Your task to perform on an android device: open app "Roku - Official Remote Control" (install if not already installed) and go to login screen Image 0: 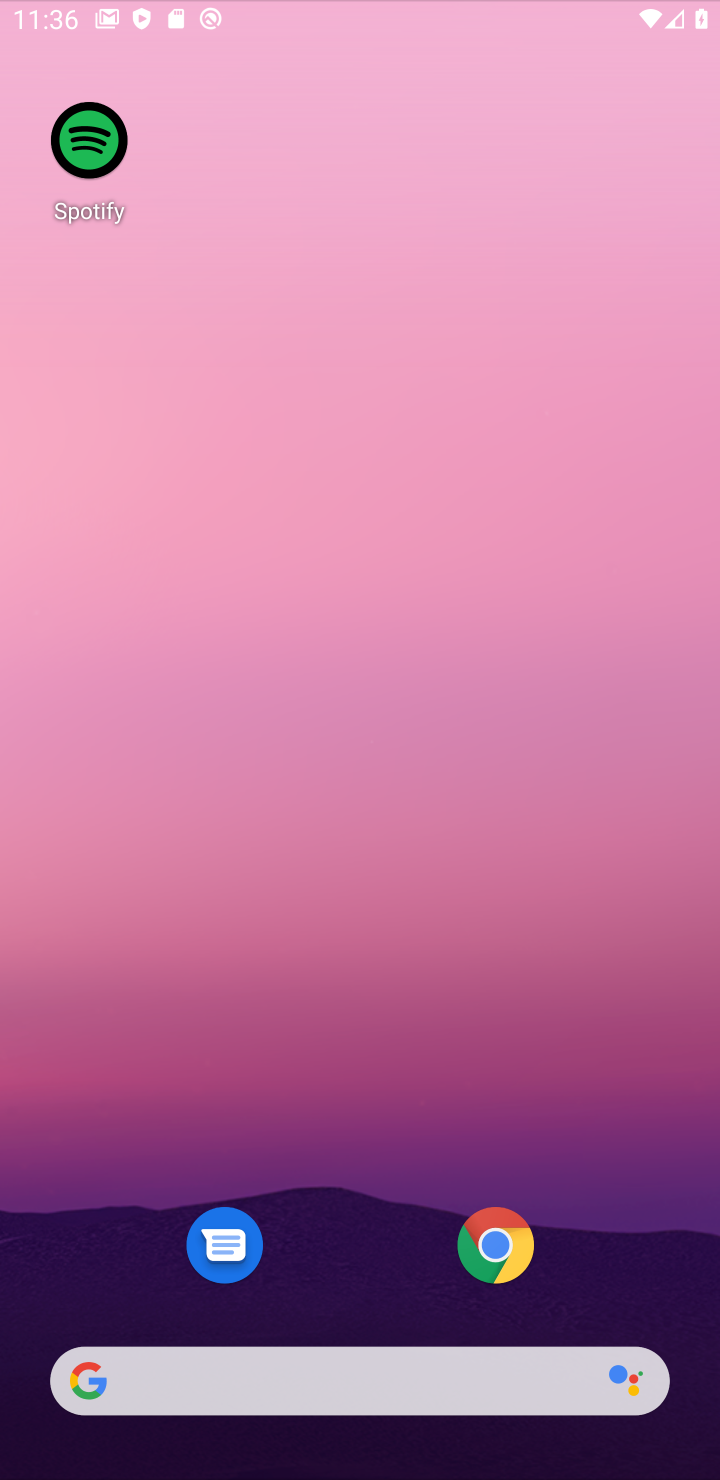
Step 0: press home button
Your task to perform on an android device: open app "Roku - Official Remote Control" (install if not already installed) and go to login screen Image 1: 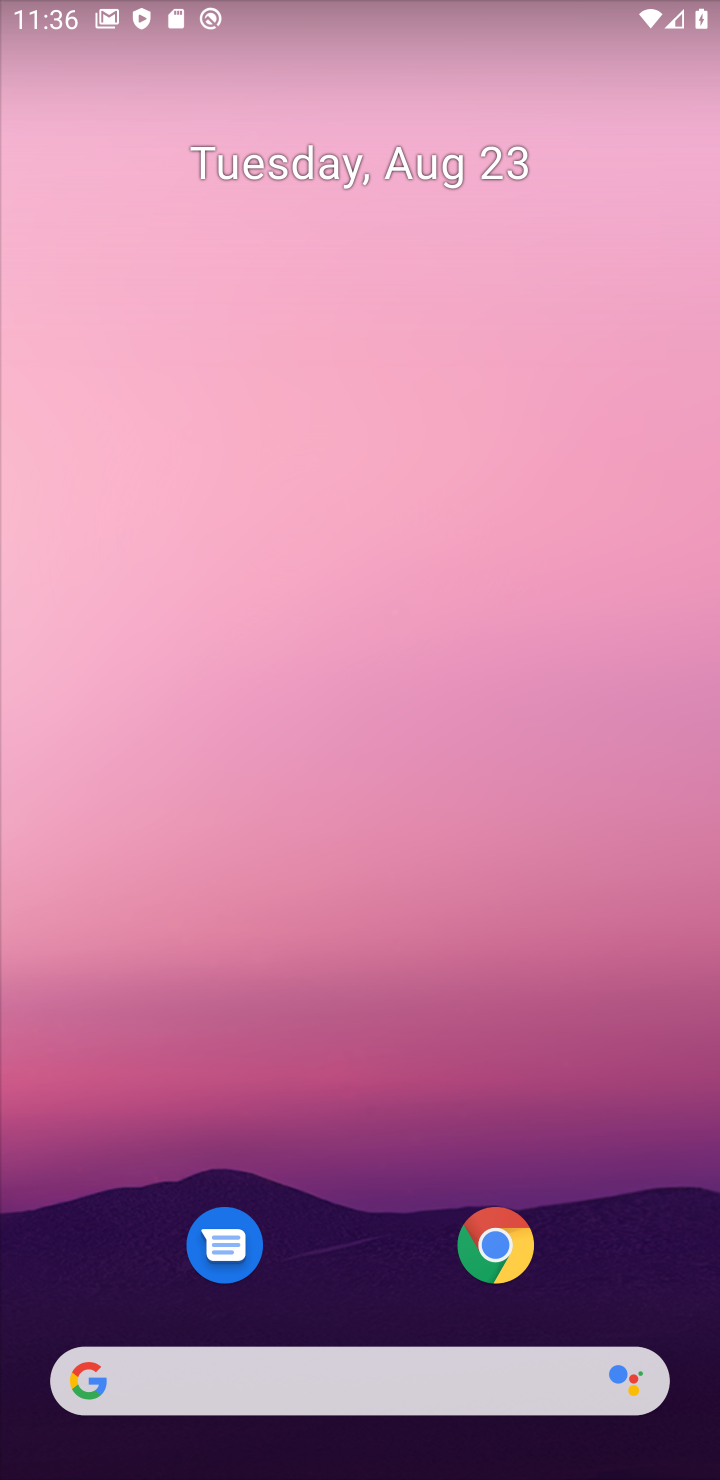
Step 1: press home button
Your task to perform on an android device: open app "Roku - Official Remote Control" (install if not already installed) and go to login screen Image 2: 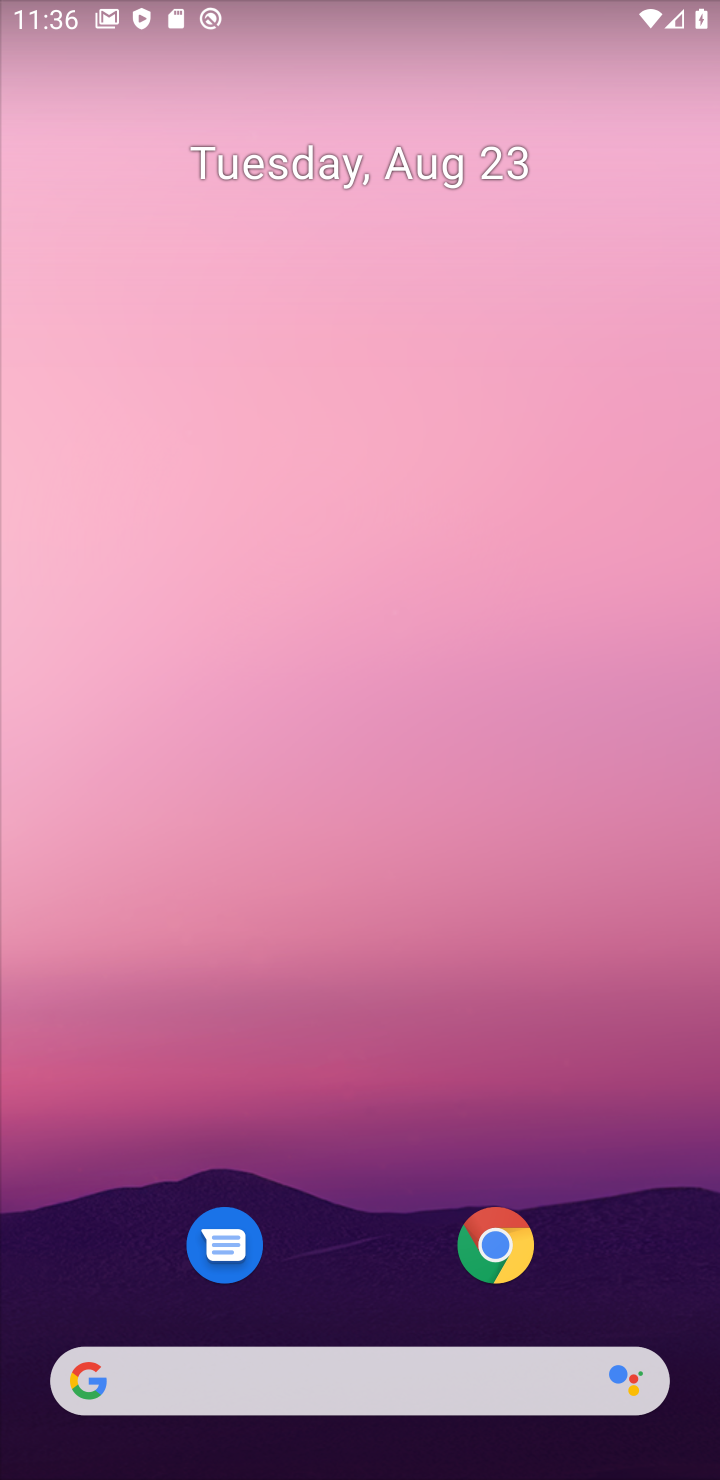
Step 2: drag from (431, 1209) to (665, 18)
Your task to perform on an android device: open app "Roku - Official Remote Control" (install if not already installed) and go to login screen Image 3: 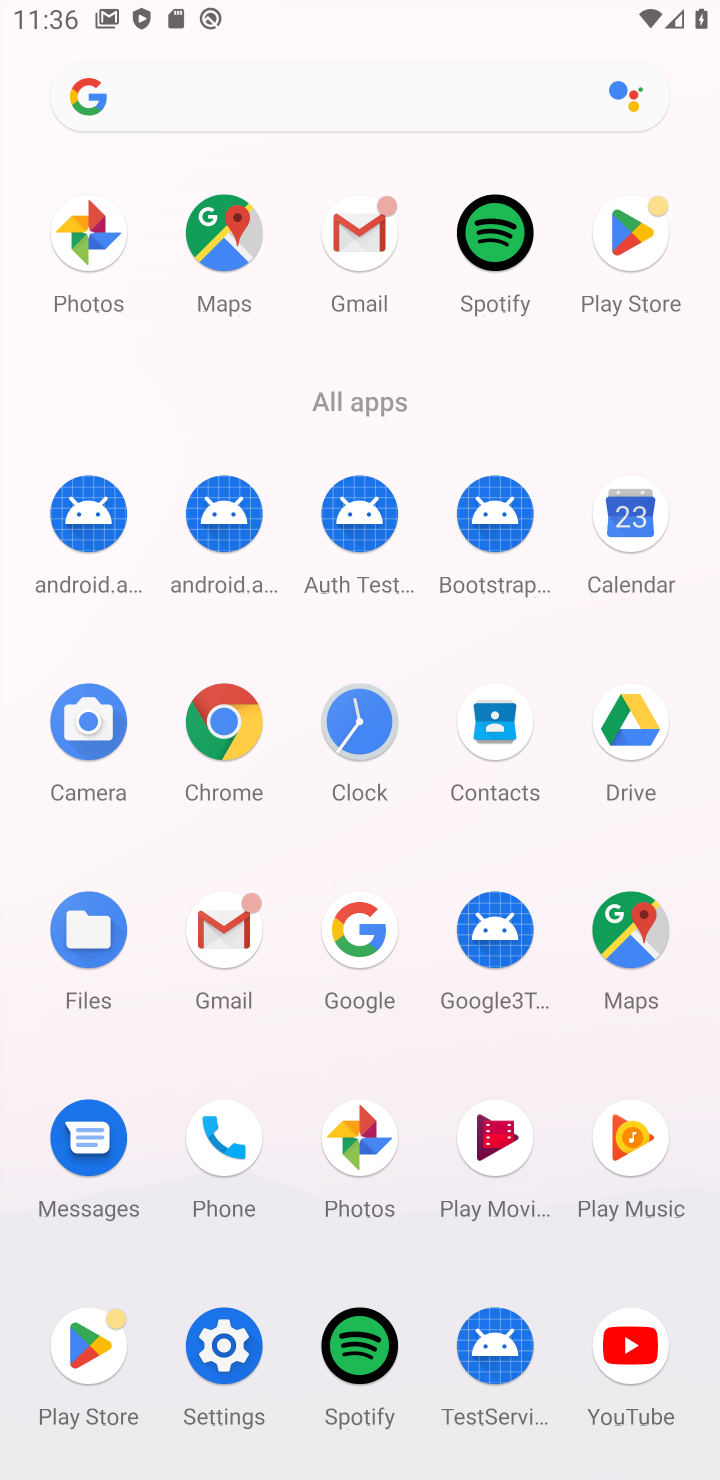
Step 3: drag from (86, 1344) to (436, 749)
Your task to perform on an android device: open app "Roku - Official Remote Control" (install if not already installed) and go to login screen Image 4: 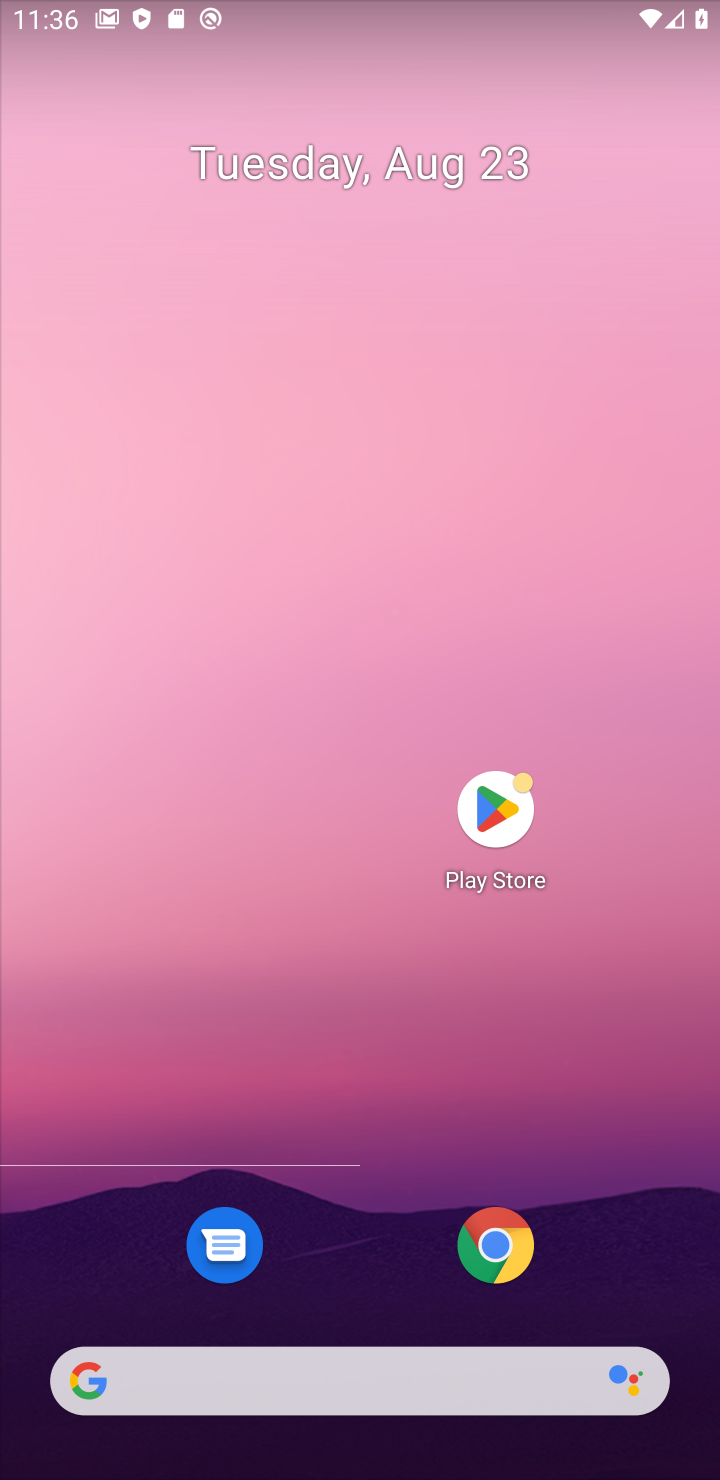
Step 4: click (494, 816)
Your task to perform on an android device: open app "Roku - Official Remote Control" (install if not already installed) and go to login screen Image 5: 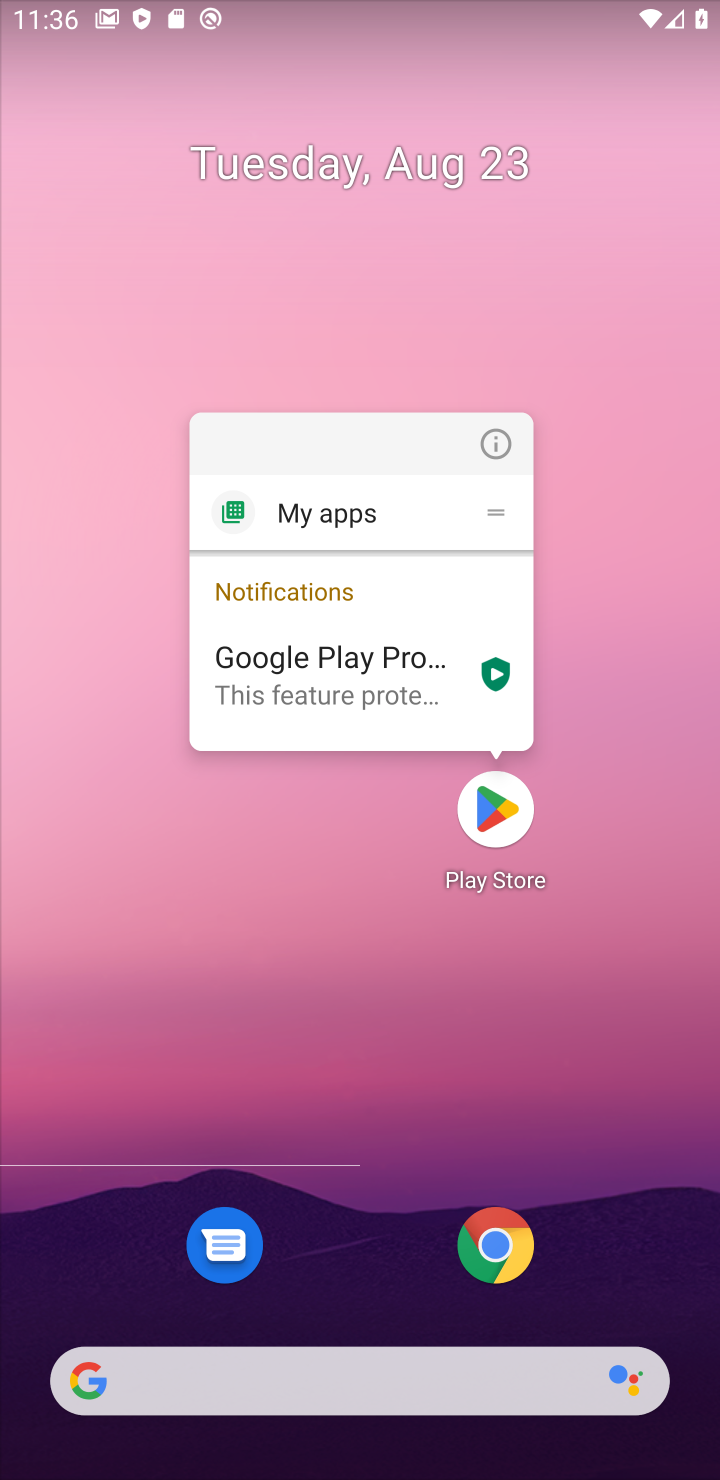
Step 5: click (494, 818)
Your task to perform on an android device: open app "Roku - Official Remote Control" (install if not already installed) and go to login screen Image 6: 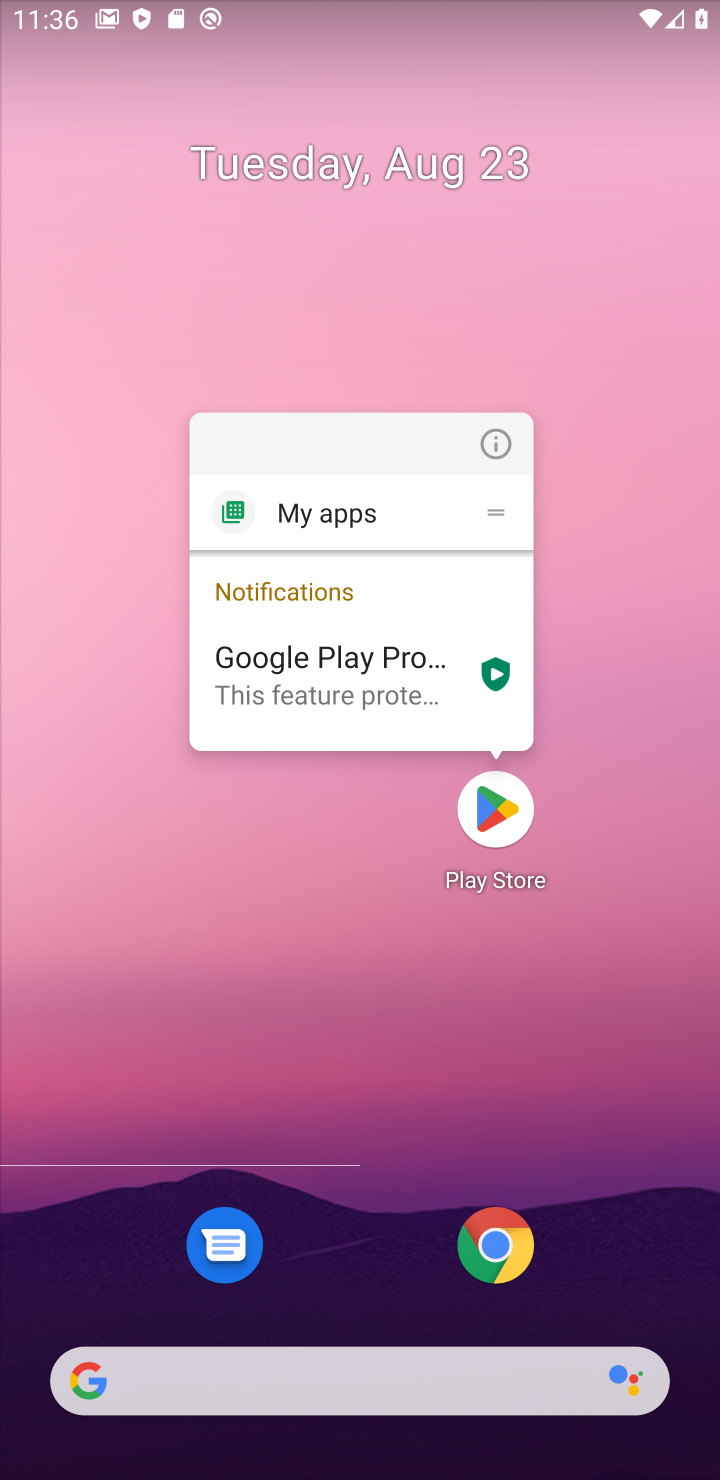
Step 6: click (498, 806)
Your task to perform on an android device: open app "Roku - Official Remote Control" (install if not already installed) and go to login screen Image 7: 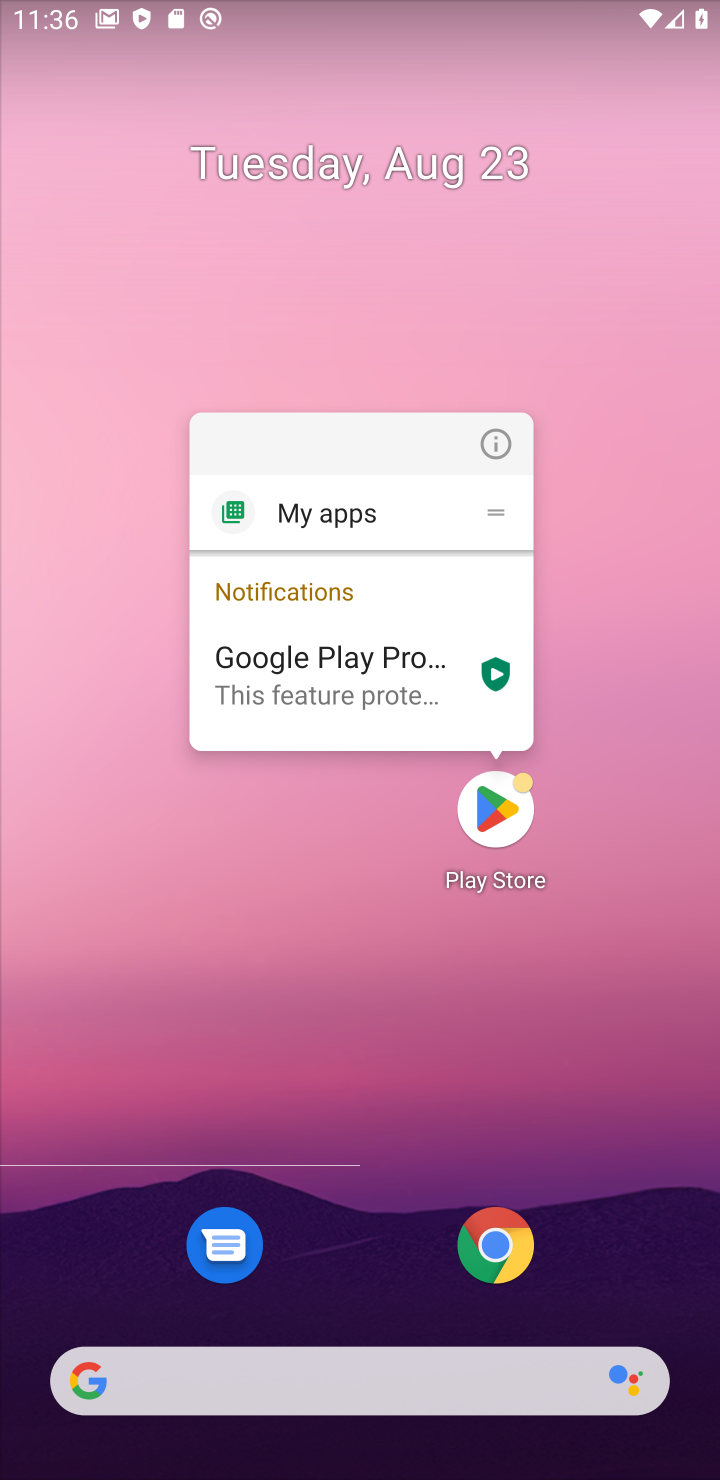
Step 7: click (498, 815)
Your task to perform on an android device: open app "Roku - Official Remote Control" (install if not already installed) and go to login screen Image 8: 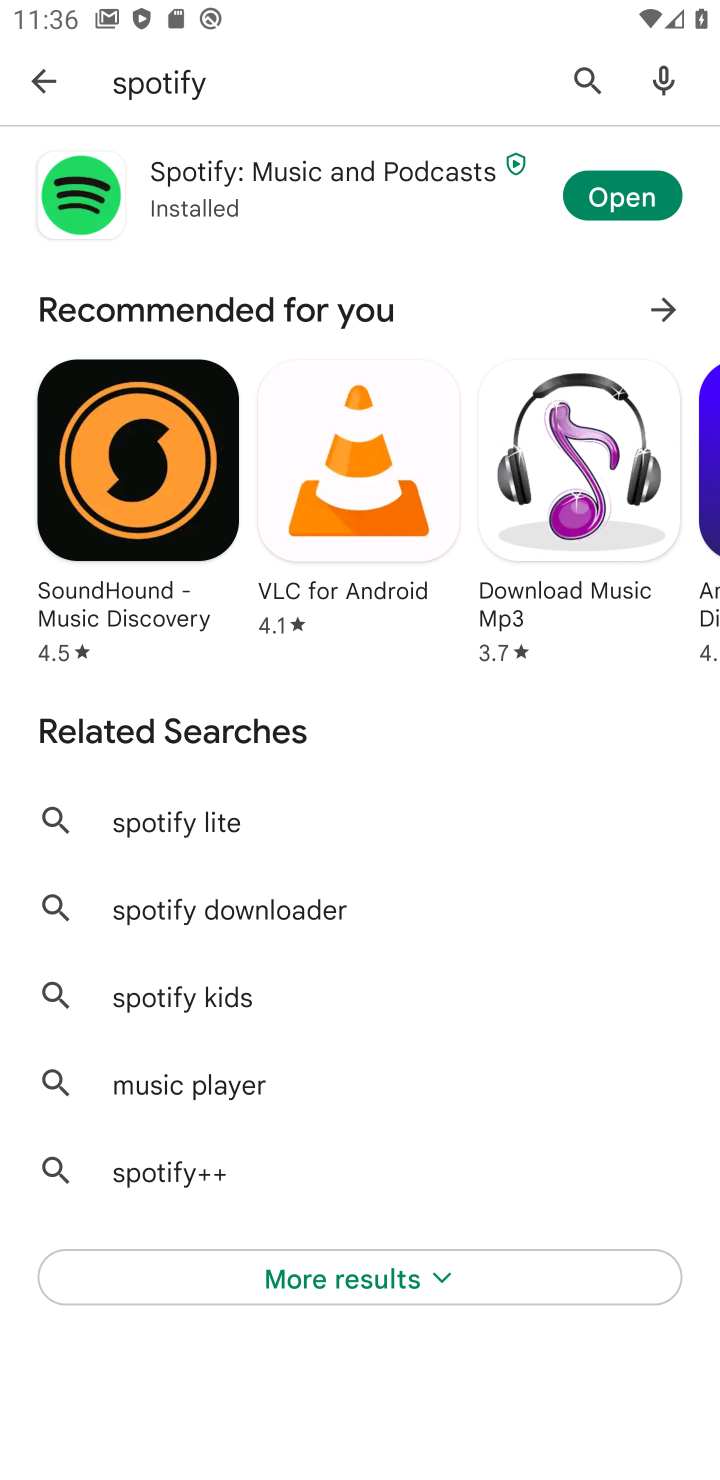
Step 8: click (576, 74)
Your task to perform on an android device: open app "Roku - Official Remote Control" (install if not already installed) and go to login screen Image 9: 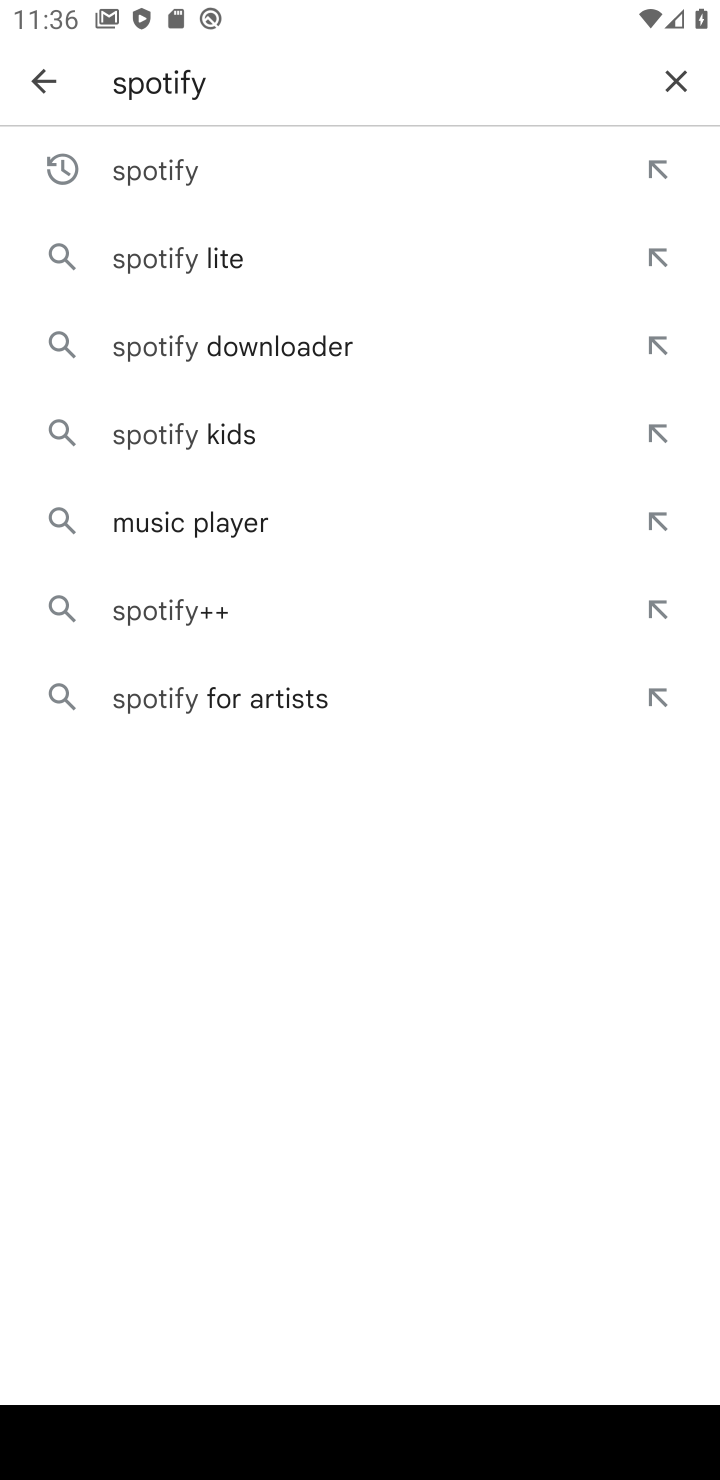
Step 9: click (667, 78)
Your task to perform on an android device: open app "Roku - Official Remote Control" (install if not already installed) and go to login screen Image 10: 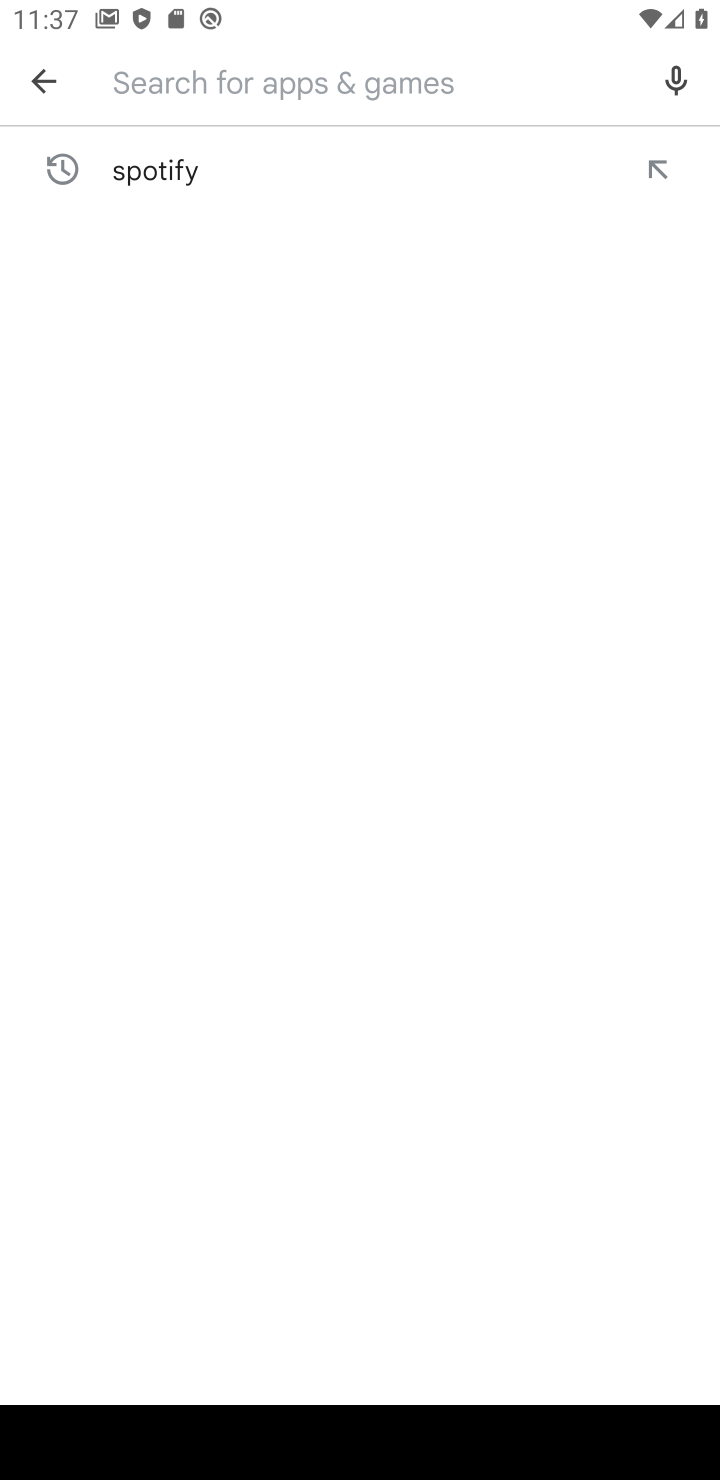
Step 10: type "Roku - Official Remote Control"
Your task to perform on an android device: open app "Roku - Official Remote Control" (install if not already installed) and go to login screen Image 11: 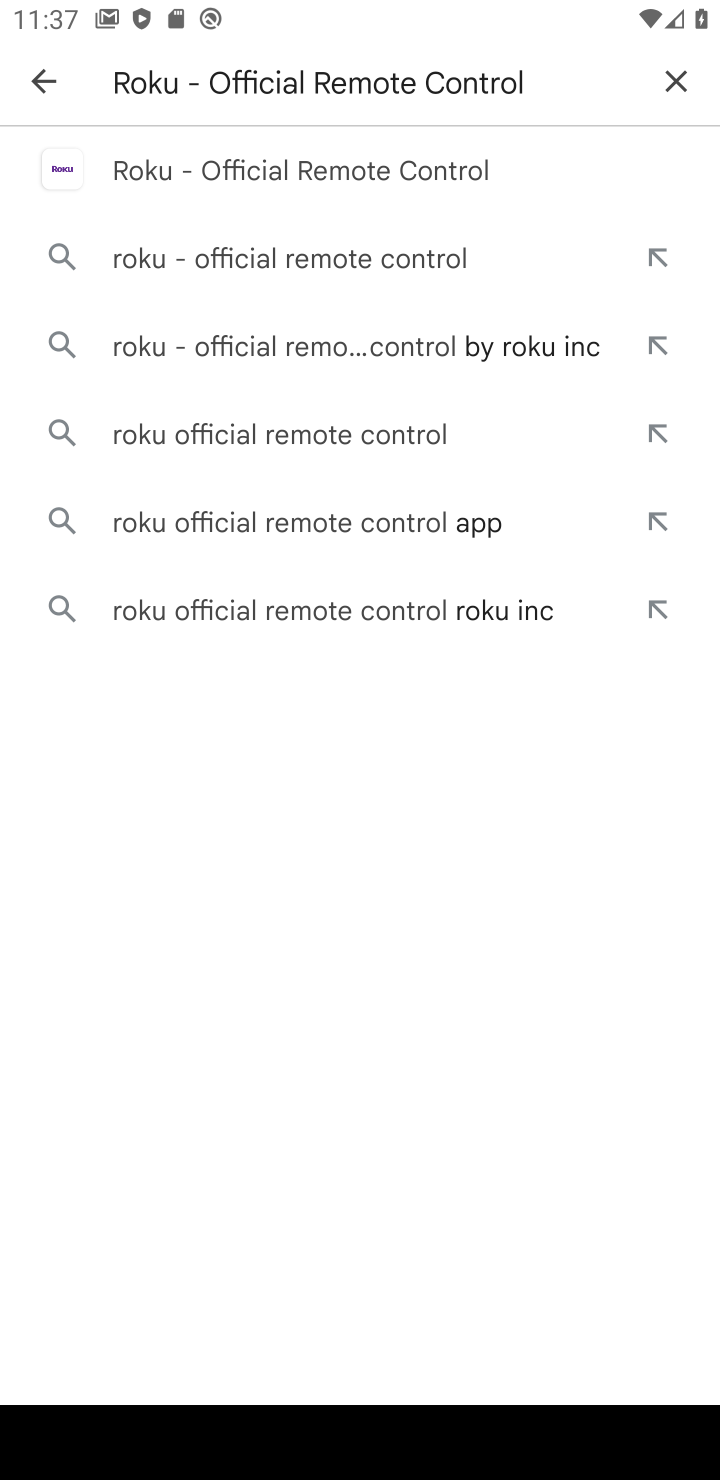
Step 11: click (321, 165)
Your task to perform on an android device: open app "Roku - Official Remote Control" (install if not already installed) and go to login screen Image 12: 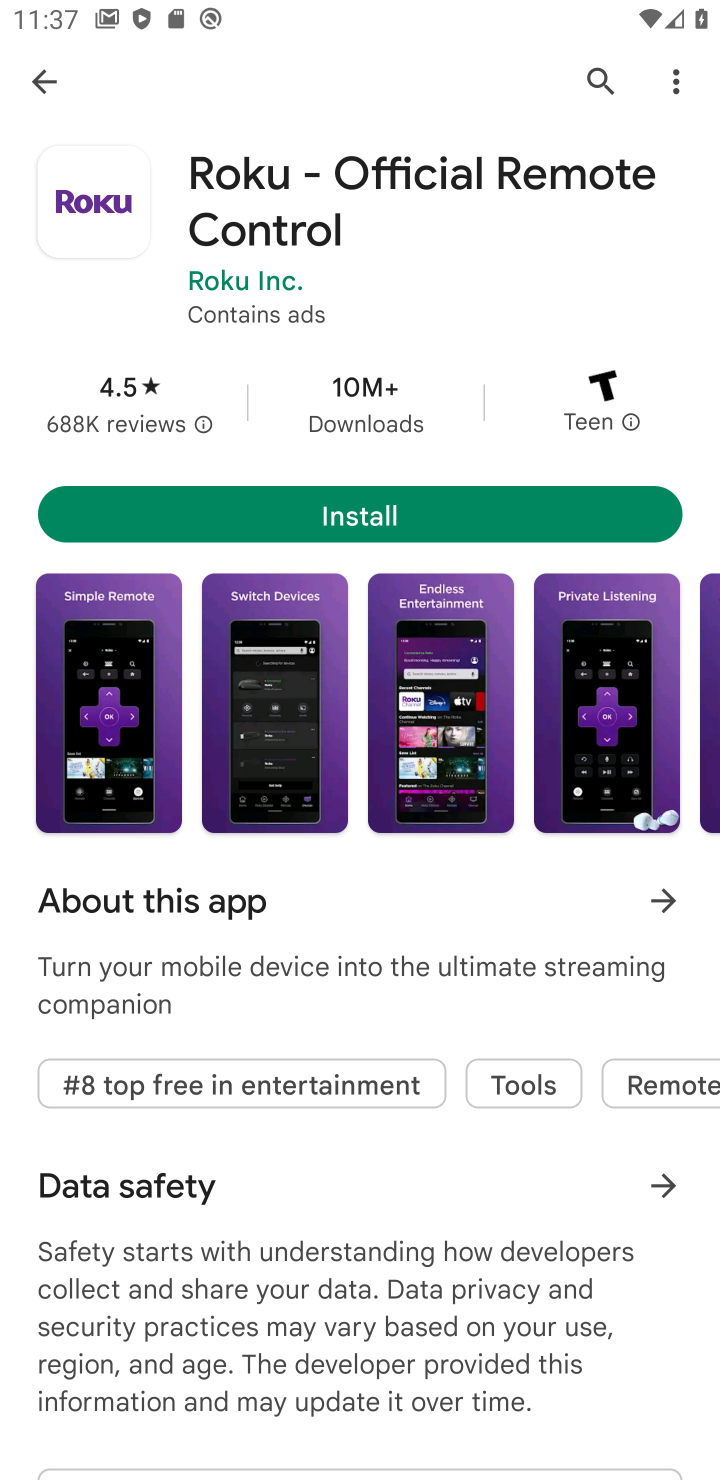
Step 12: click (393, 524)
Your task to perform on an android device: open app "Roku - Official Remote Control" (install if not already installed) and go to login screen Image 13: 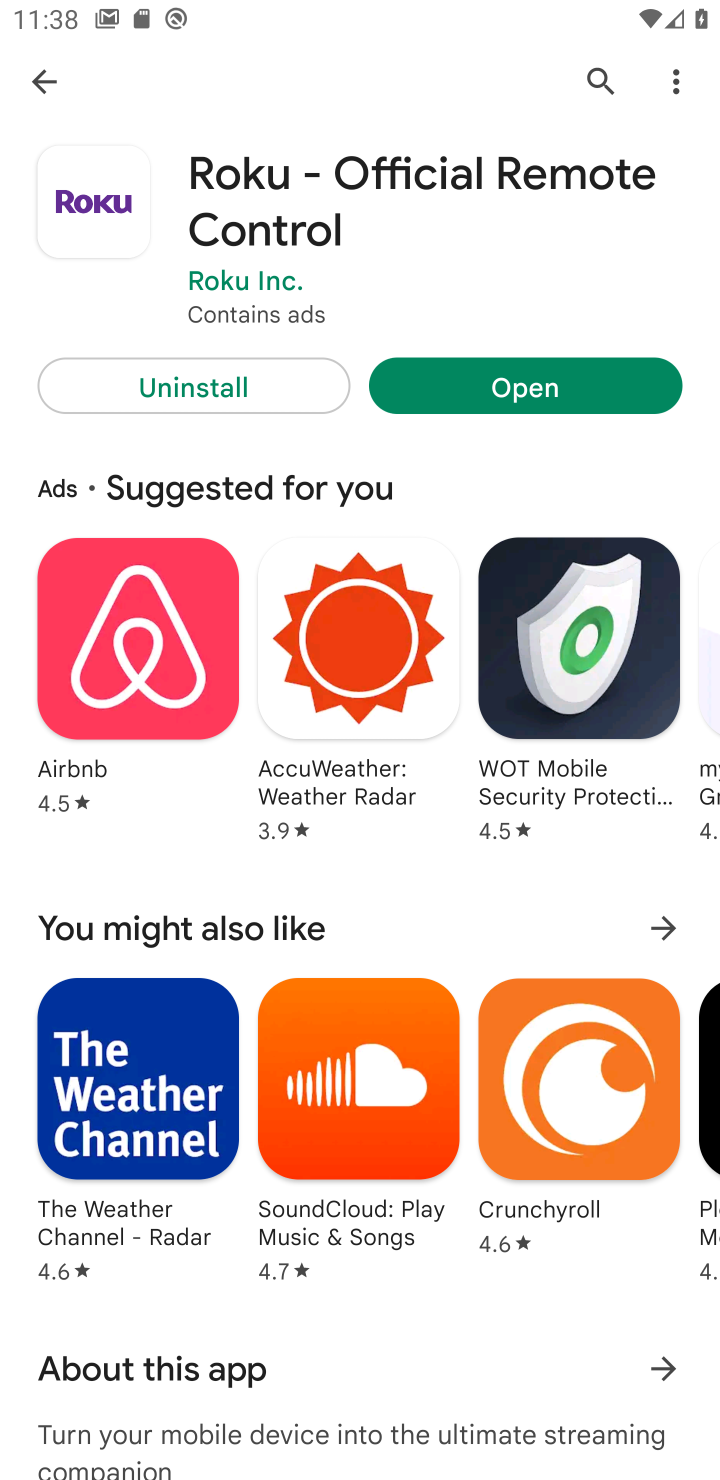
Step 13: click (575, 390)
Your task to perform on an android device: open app "Roku - Official Remote Control" (install if not already installed) and go to login screen Image 14: 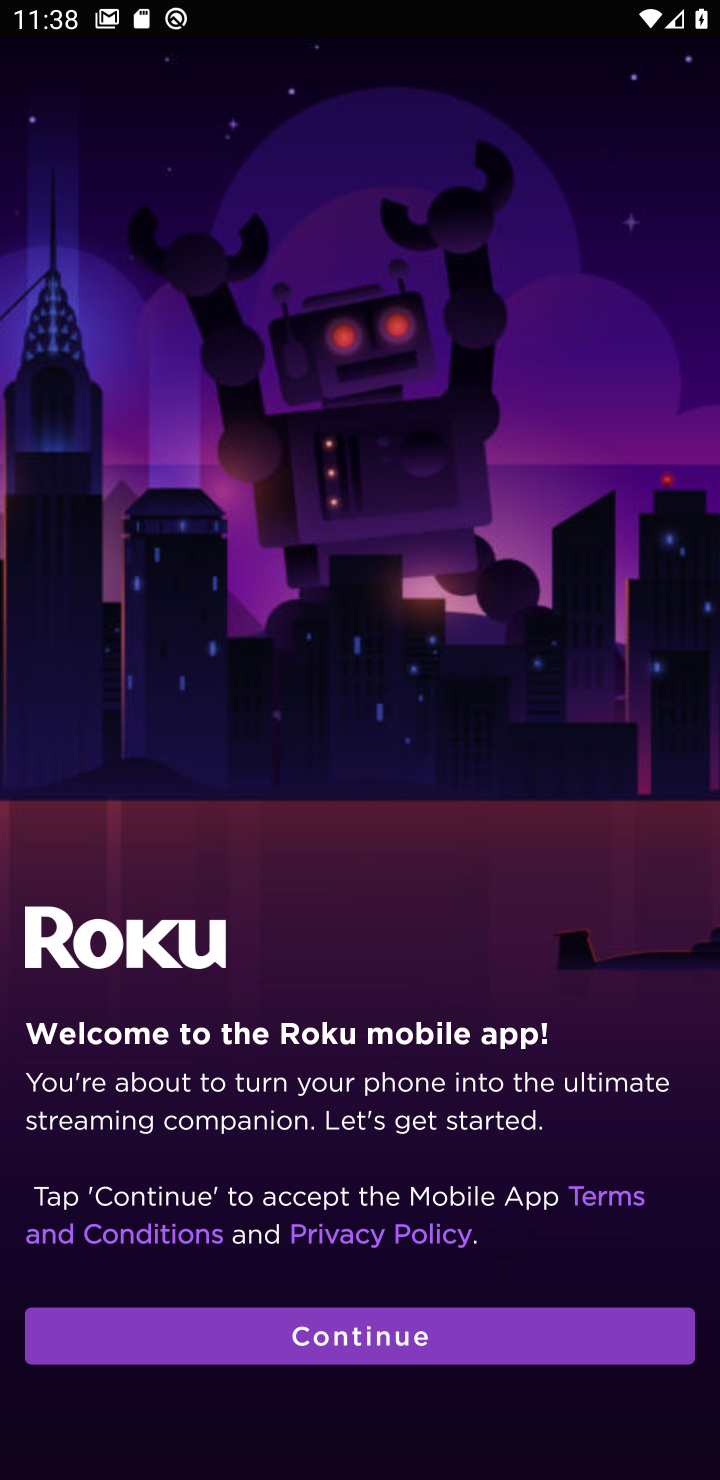
Step 14: click (379, 1342)
Your task to perform on an android device: open app "Roku - Official Remote Control" (install if not already installed) and go to login screen Image 15: 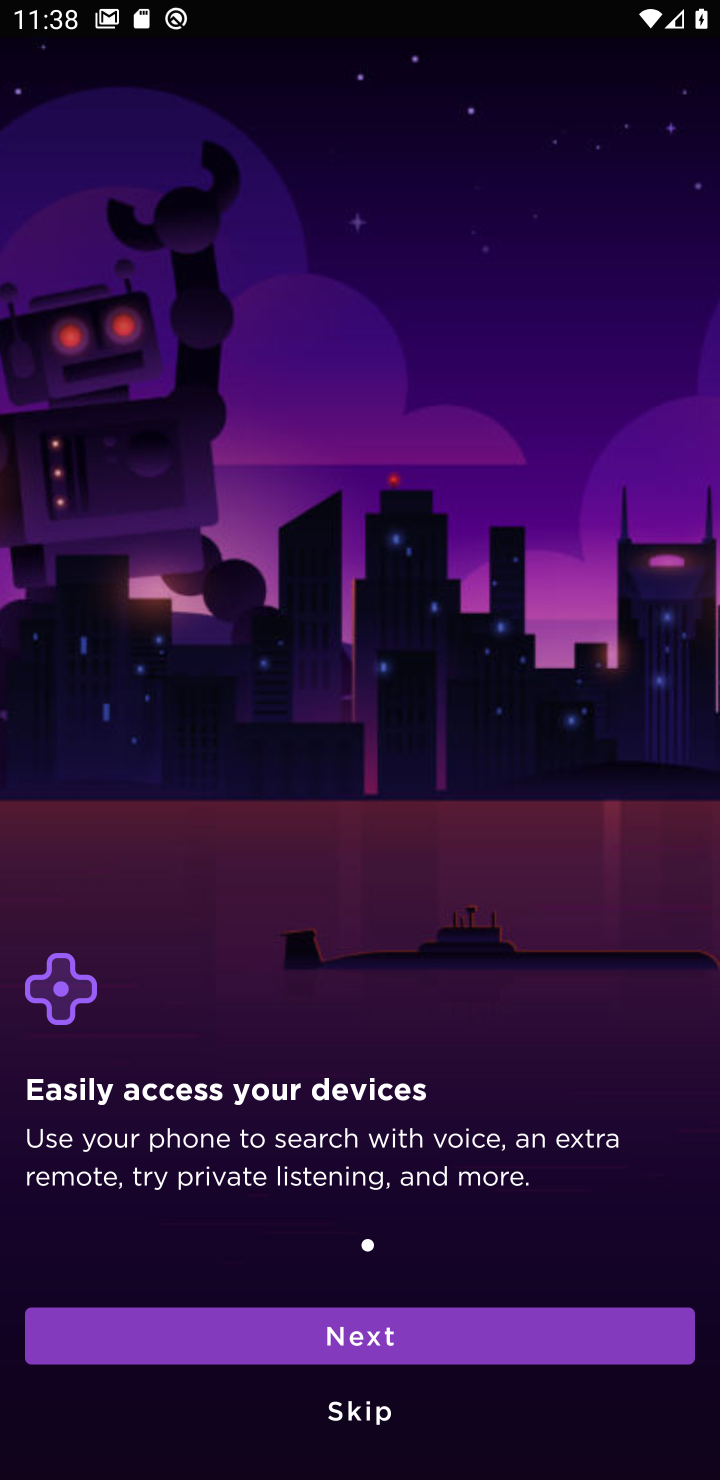
Step 15: click (375, 1418)
Your task to perform on an android device: open app "Roku - Official Remote Control" (install if not already installed) and go to login screen Image 16: 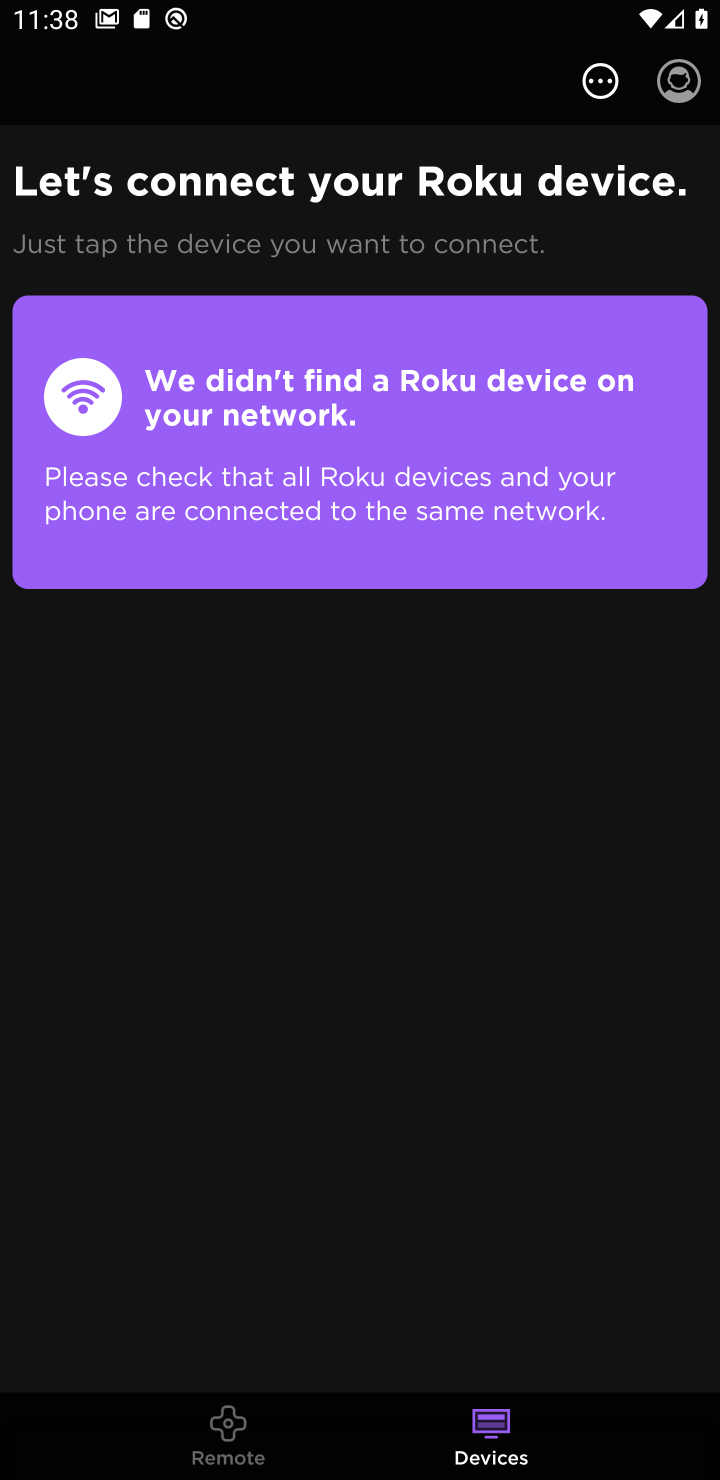
Step 16: task complete